Your task to perform on an android device: What's the weather today? Image 0: 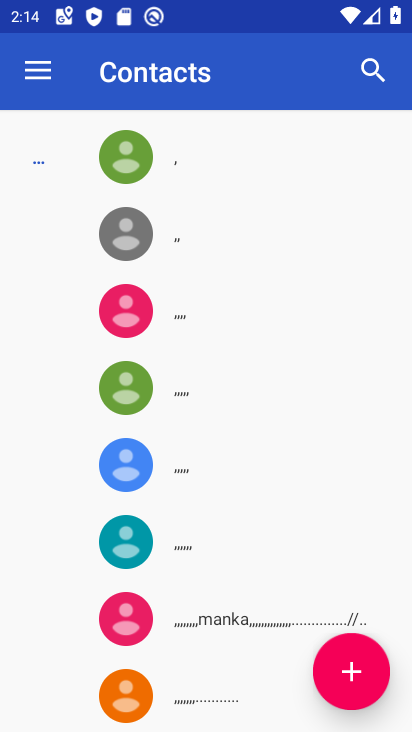
Step 0: press home button
Your task to perform on an android device: What's the weather today? Image 1: 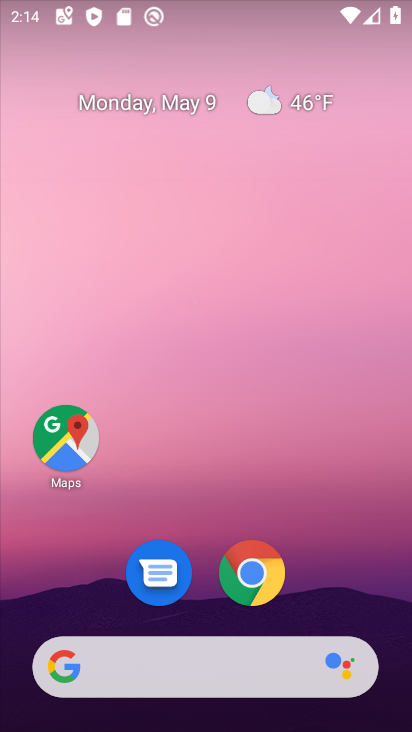
Step 1: drag from (211, 596) to (180, 147)
Your task to perform on an android device: What's the weather today? Image 2: 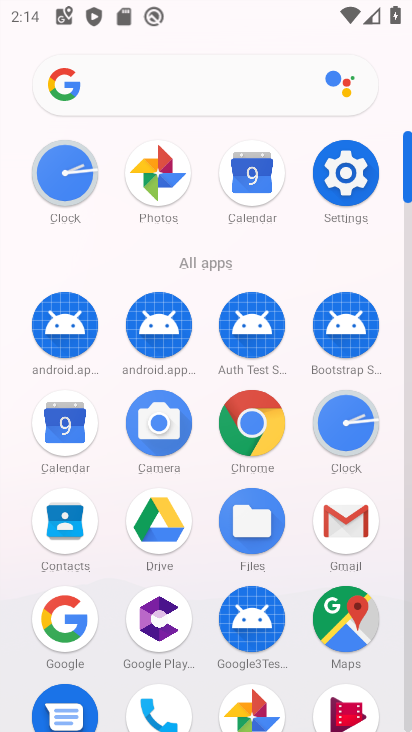
Step 2: click (58, 620)
Your task to perform on an android device: What's the weather today? Image 3: 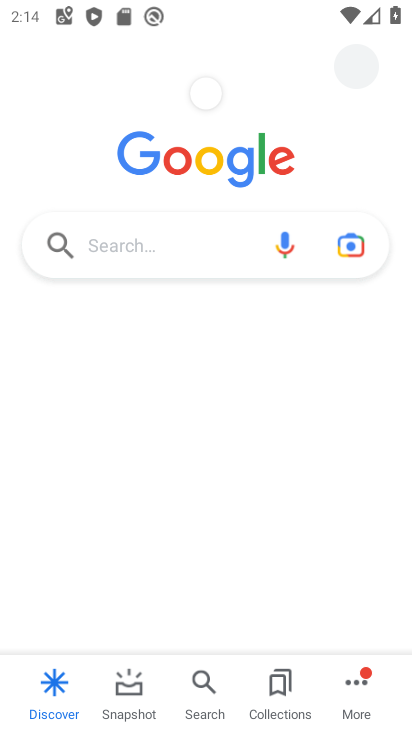
Step 3: click (152, 245)
Your task to perform on an android device: What's the weather today? Image 4: 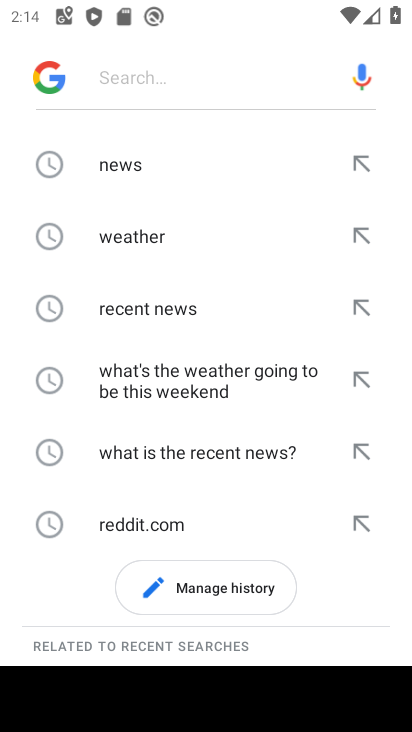
Step 4: type "whats weather today"
Your task to perform on an android device: What's the weather today? Image 5: 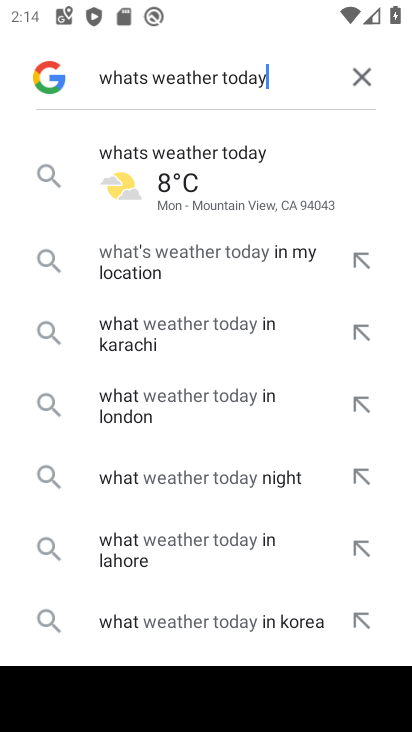
Step 5: click (171, 166)
Your task to perform on an android device: What's the weather today? Image 6: 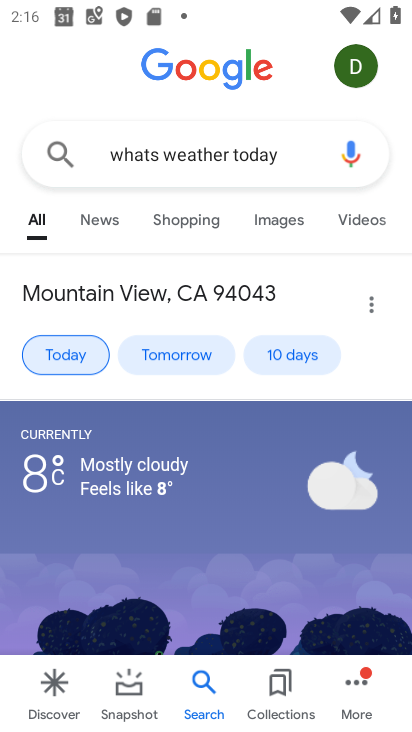
Step 6: task complete